Your task to perform on an android device: show emergency info Image 0: 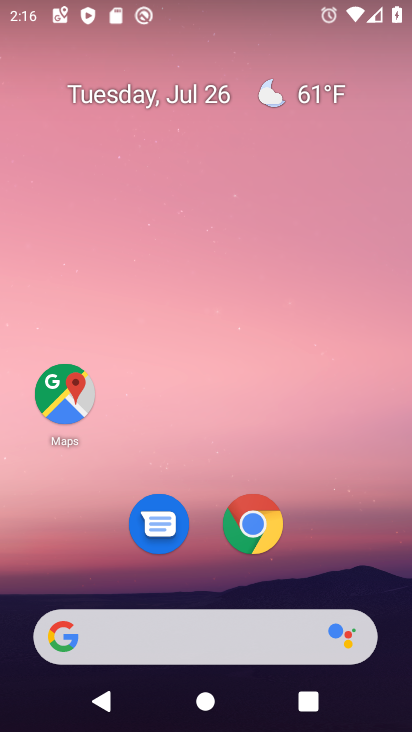
Step 0: press home button
Your task to perform on an android device: show emergency info Image 1: 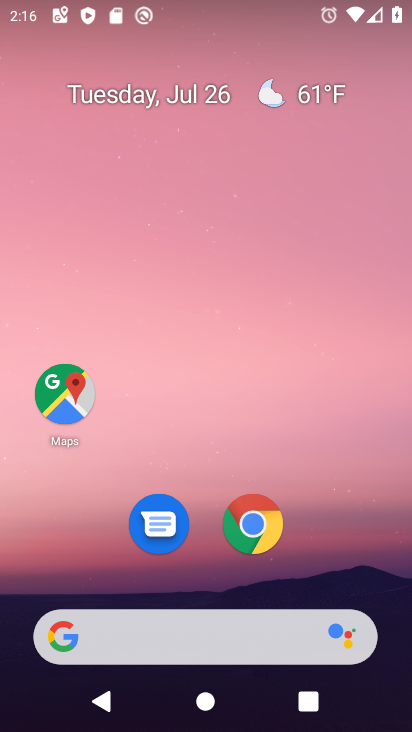
Step 1: drag from (201, 636) to (301, 108)
Your task to perform on an android device: show emergency info Image 2: 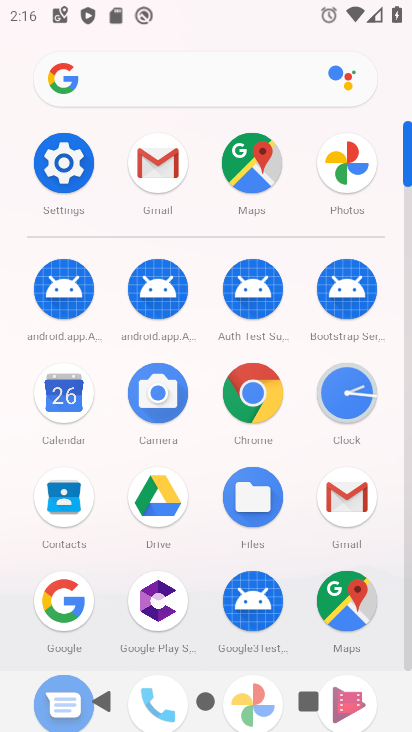
Step 2: click (69, 169)
Your task to perform on an android device: show emergency info Image 3: 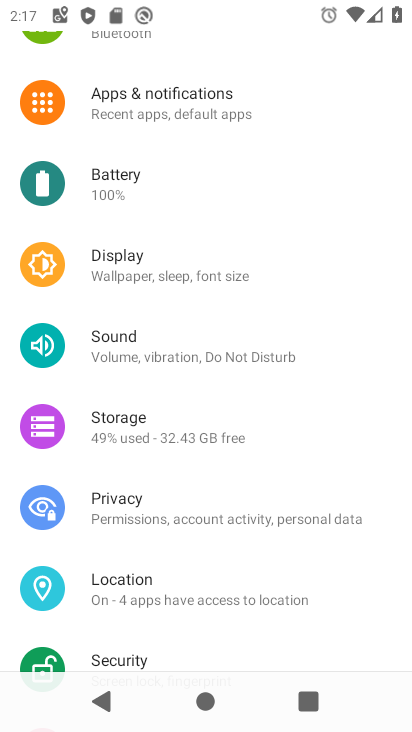
Step 3: drag from (224, 623) to (333, 110)
Your task to perform on an android device: show emergency info Image 4: 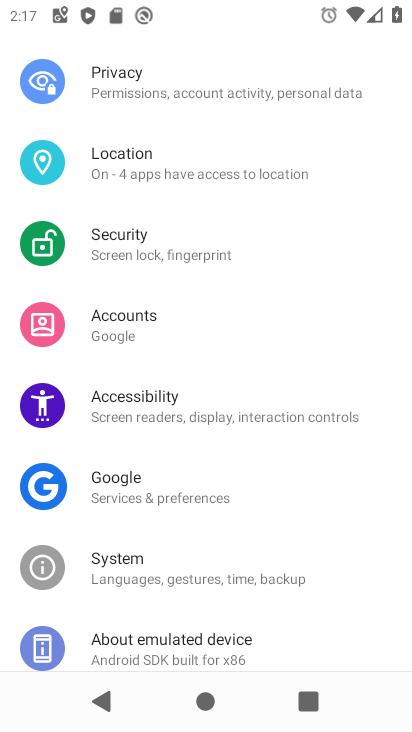
Step 4: drag from (224, 604) to (305, 103)
Your task to perform on an android device: show emergency info Image 5: 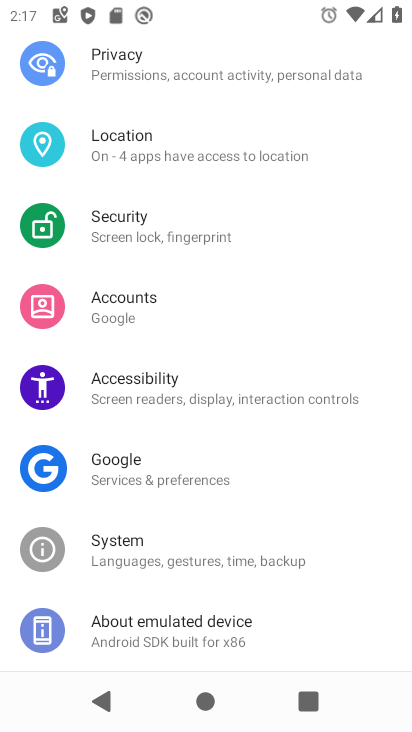
Step 5: click (176, 628)
Your task to perform on an android device: show emergency info Image 6: 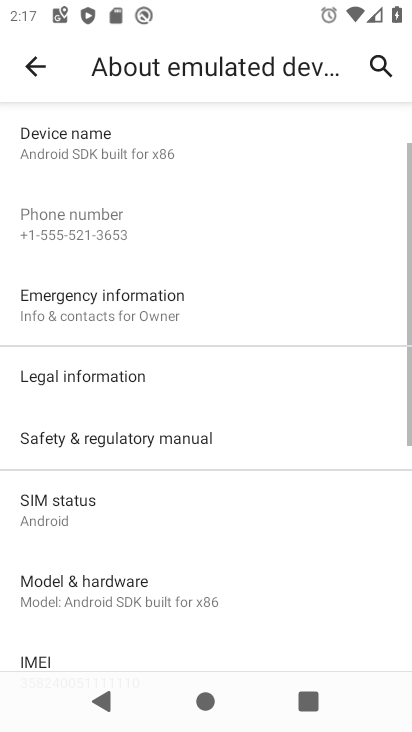
Step 6: click (131, 307)
Your task to perform on an android device: show emergency info Image 7: 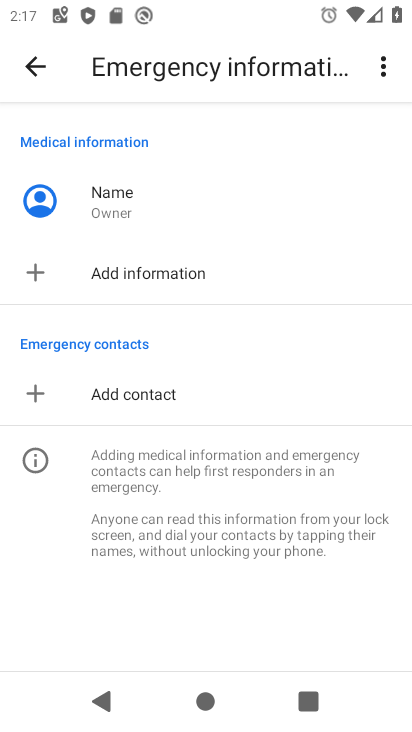
Step 7: task complete